Your task to perform on an android device: What is the news today? Image 0: 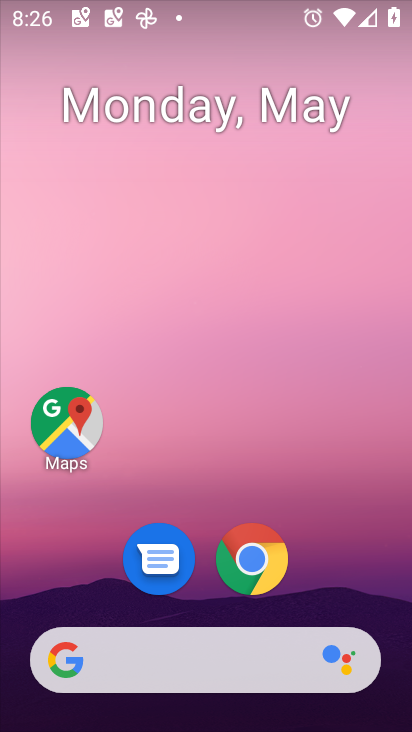
Step 0: drag from (400, 647) to (287, 90)
Your task to perform on an android device: What is the news today? Image 1: 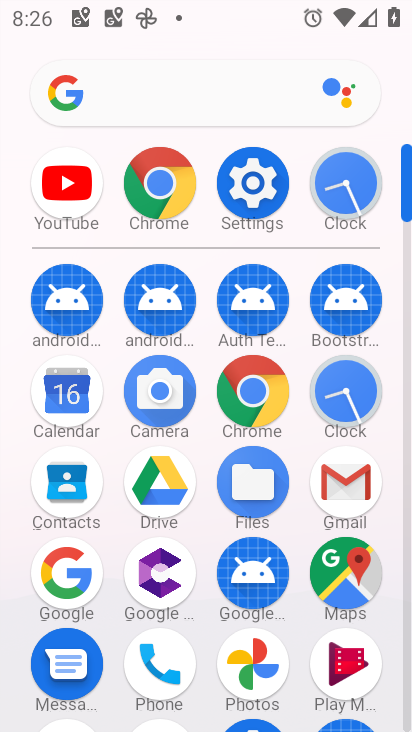
Step 1: click (78, 588)
Your task to perform on an android device: What is the news today? Image 2: 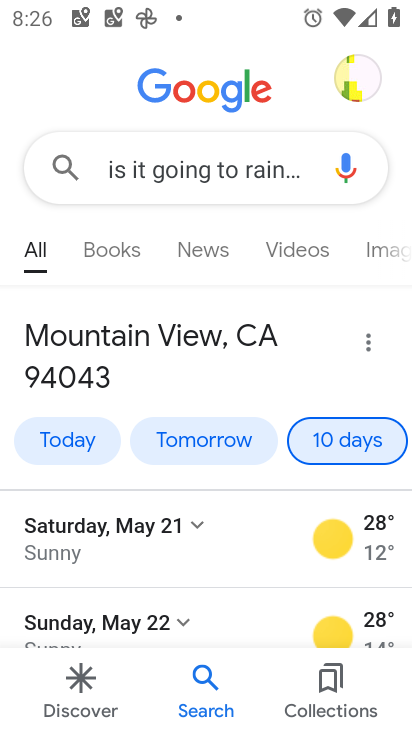
Step 2: press back button
Your task to perform on an android device: What is the news today? Image 3: 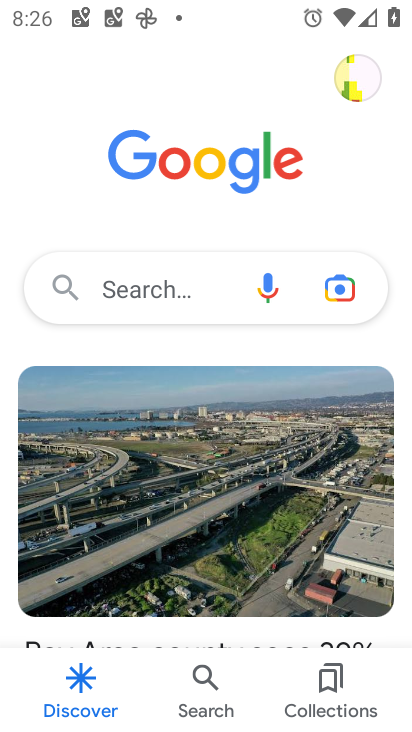
Step 3: click (130, 311)
Your task to perform on an android device: What is the news today? Image 4: 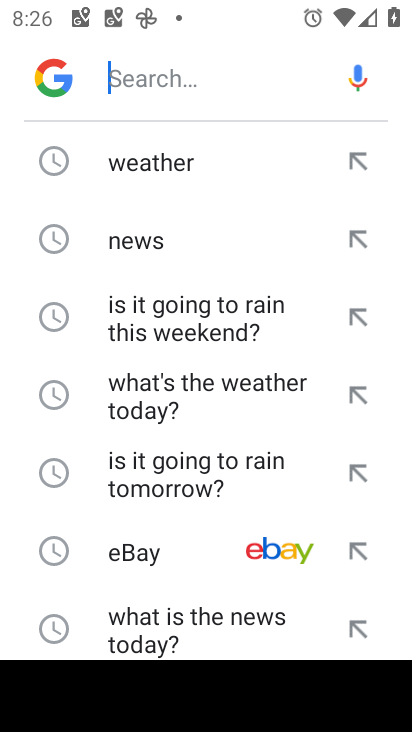
Step 4: drag from (178, 526) to (221, 262)
Your task to perform on an android device: What is the news today? Image 5: 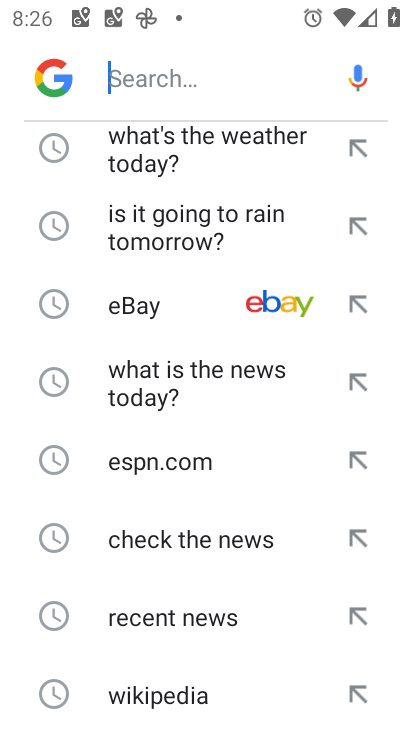
Step 5: click (192, 390)
Your task to perform on an android device: What is the news today? Image 6: 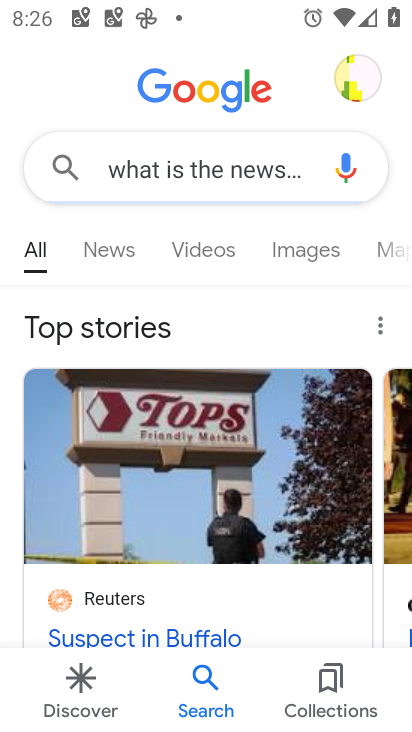
Step 6: task complete